Your task to perform on an android device: find snoozed emails in the gmail app Image 0: 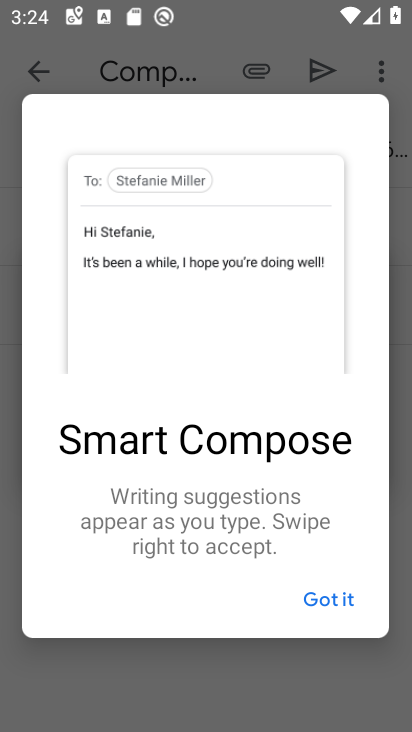
Step 0: press home button
Your task to perform on an android device: find snoozed emails in the gmail app Image 1: 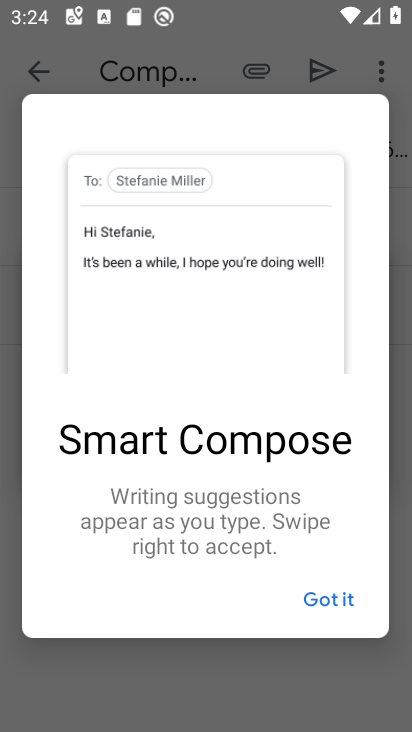
Step 1: press home button
Your task to perform on an android device: find snoozed emails in the gmail app Image 2: 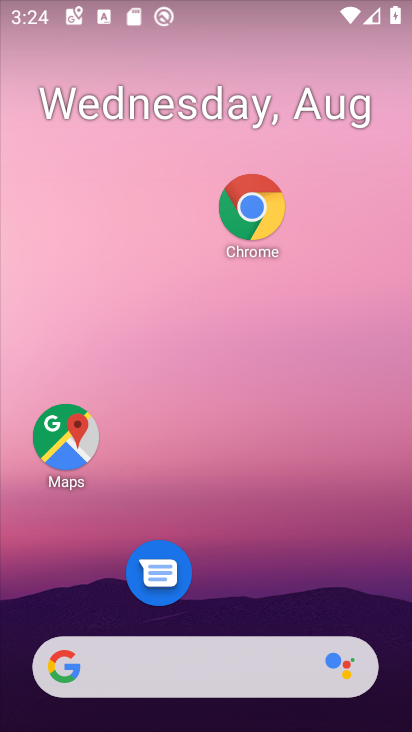
Step 2: drag from (324, 546) to (354, 5)
Your task to perform on an android device: find snoozed emails in the gmail app Image 3: 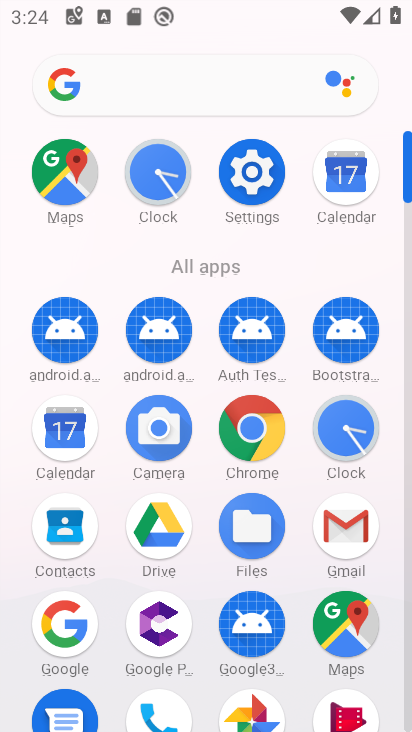
Step 3: click (344, 527)
Your task to perform on an android device: find snoozed emails in the gmail app Image 4: 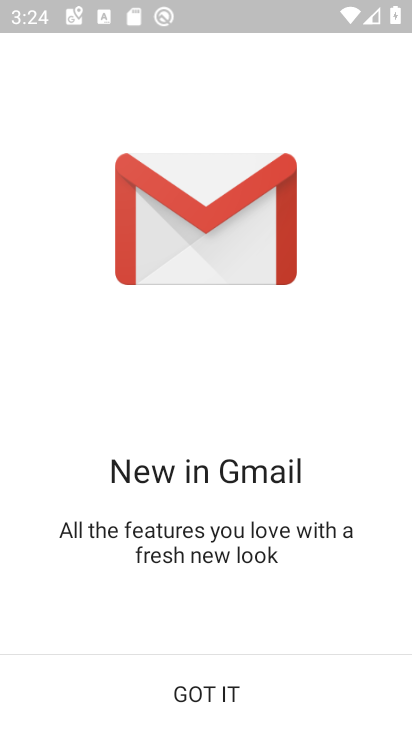
Step 4: click (264, 691)
Your task to perform on an android device: find snoozed emails in the gmail app Image 5: 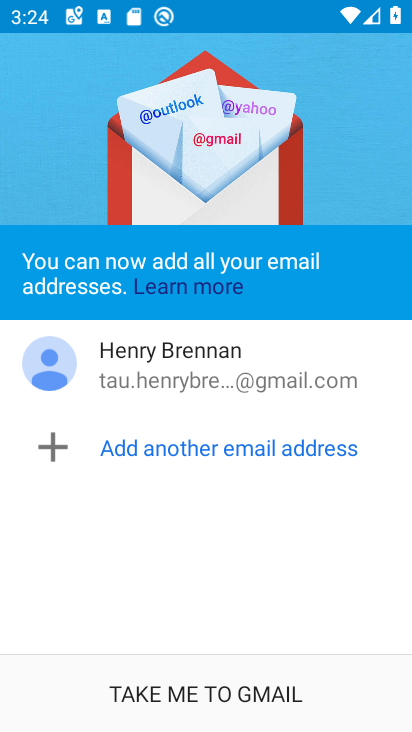
Step 5: click (264, 687)
Your task to perform on an android device: find snoozed emails in the gmail app Image 6: 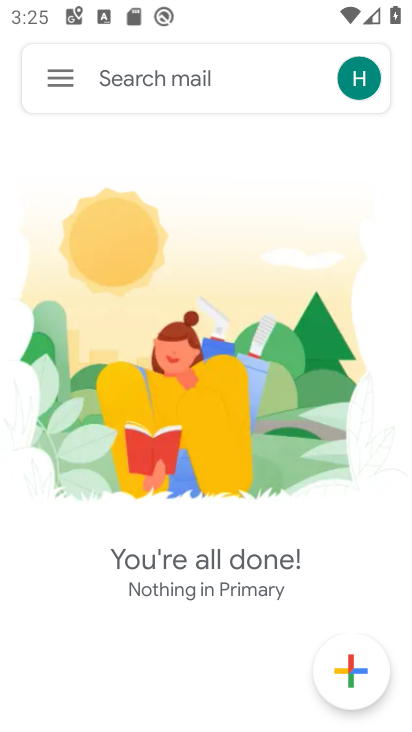
Step 6: click (60, 76)
Your task to perform on an android device: find snoozed emails in the gmail app Image 7: 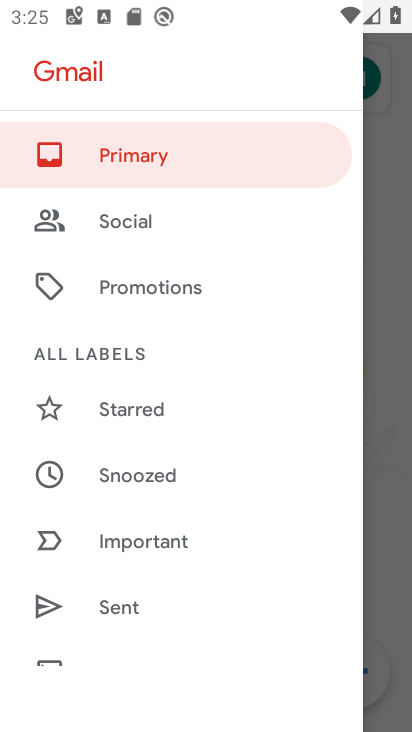
Step 7: click (128, 475)
Your task to perform on an android device: find snoozed emails in the gmail app Image 8: 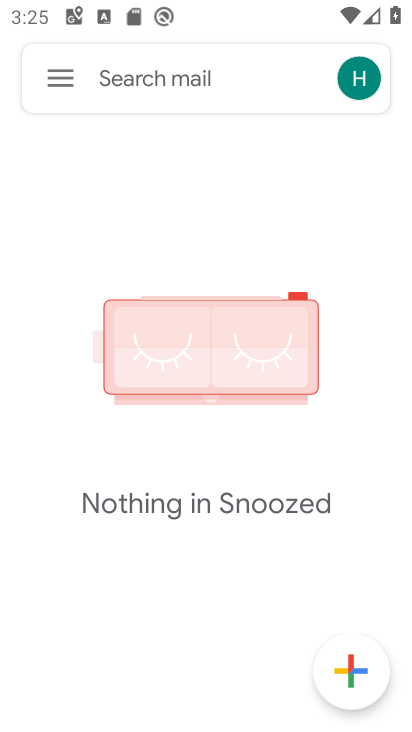
Step 8: task complete